Your task to perform on an android device: stop showing notifications on the lock screen Image 0: 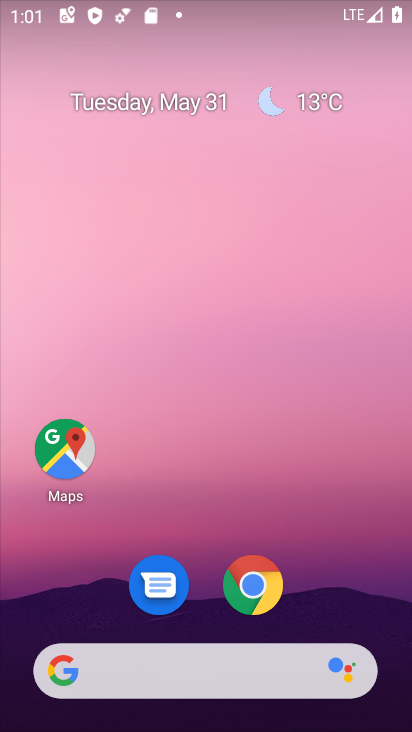
Step 0: drag from (217, 534) to (204, 36)
Your task to perform on an android device: stop showing notifications on the lock screen Image 1: 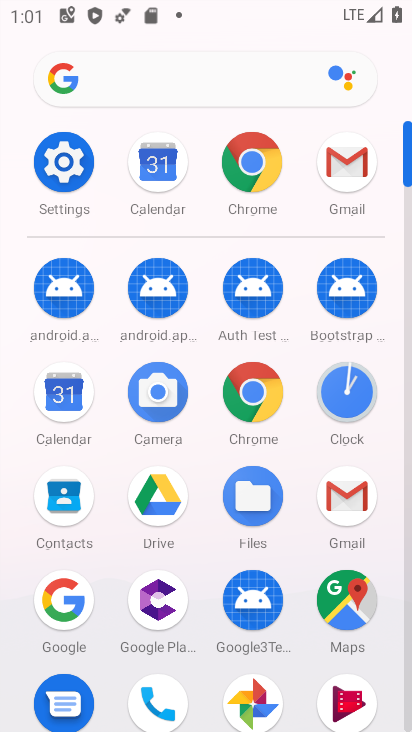
Step 1: click (62, 164)
Your task to perform on an android device: stop showing notifications on the lock screen Image 2: 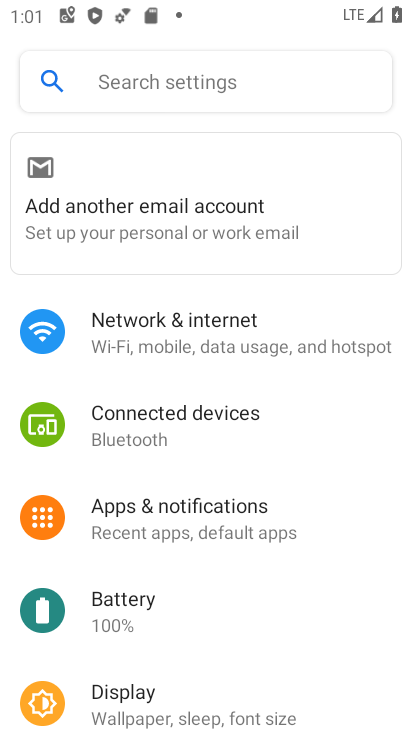
Step 2: click (191, 515)
Your task to perform on an android device: stop showing notifications on the lock screen Image 3: 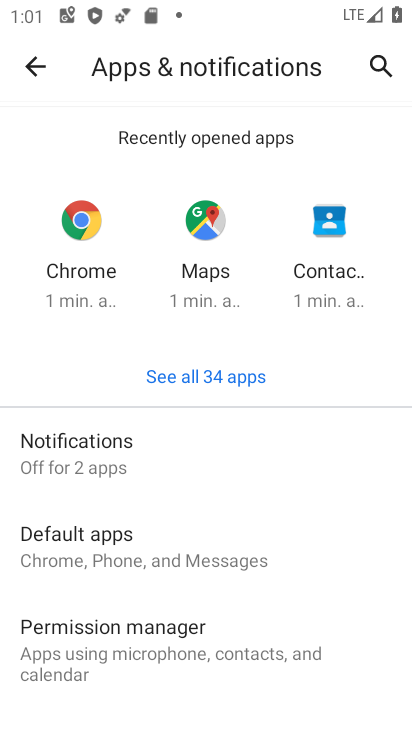
Step 3: click (173, 462)
Your task to perform on an android device: stop showing notifications on the lock screen Image 4: 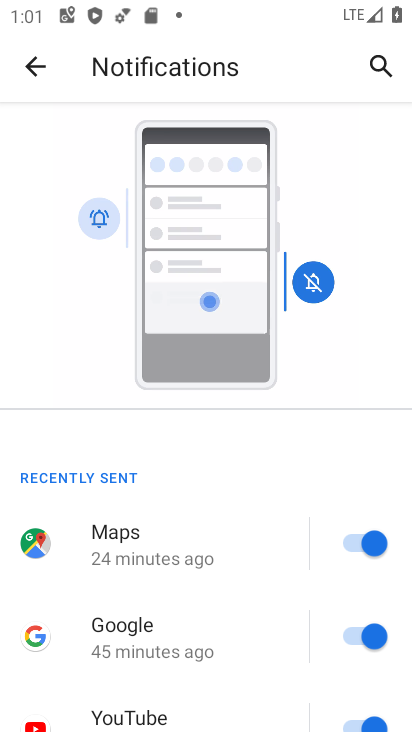
Step 4: task complete